Your task to perform on an android device: turn vacation reply on in the gmail app Image 0: 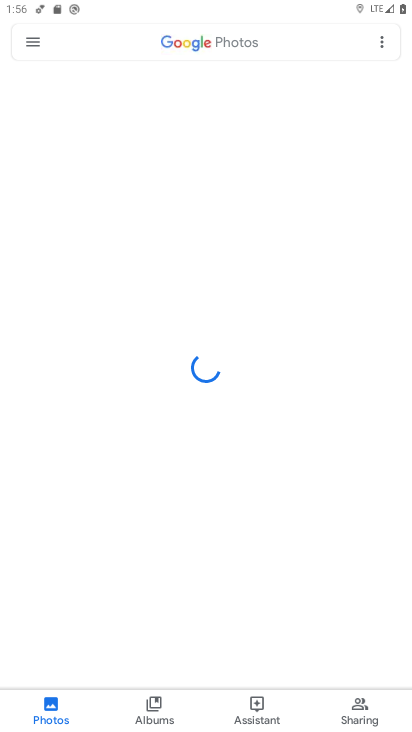
Step 0: press home button
Your task to perform on an android device: turn vacation reply on in the gmail app Image 1: 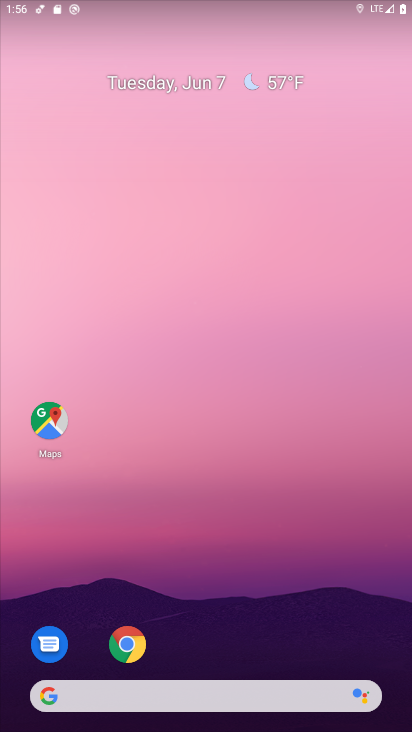
Step 1: drag from (251, 627) to (249, 48)
Your task to perform on an android device: turn vacation reply on in the gmail app Image 2: 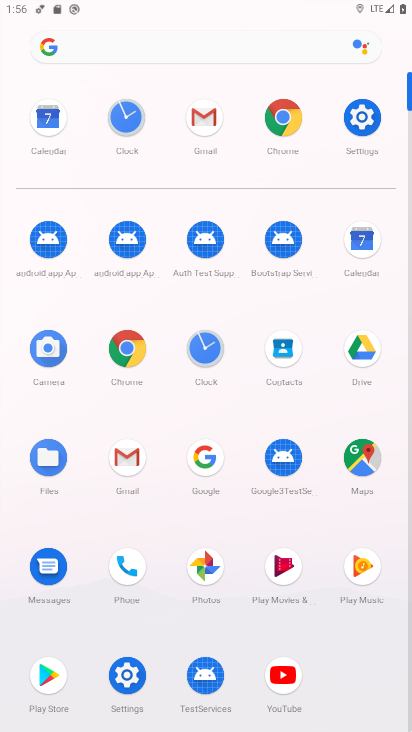
Step 2: click (115, 453)
Your task to perform on an android device: turn vacation reply on in the gmail app Image 3: 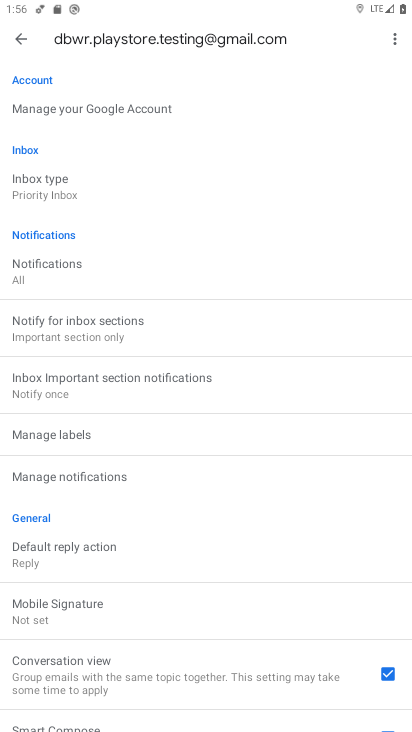
Step 3: drag from (207, 606) to (143, 197)
Your task to perform on an android device: turn vacation reply on in the gmail app Image 4: 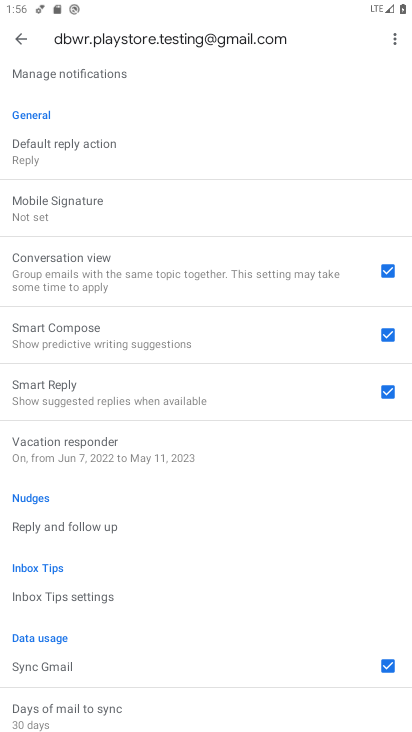
Step 4: click (87, 446)
Your task to perform on an android device: turn vacation reply on in the gmail app Image 5: 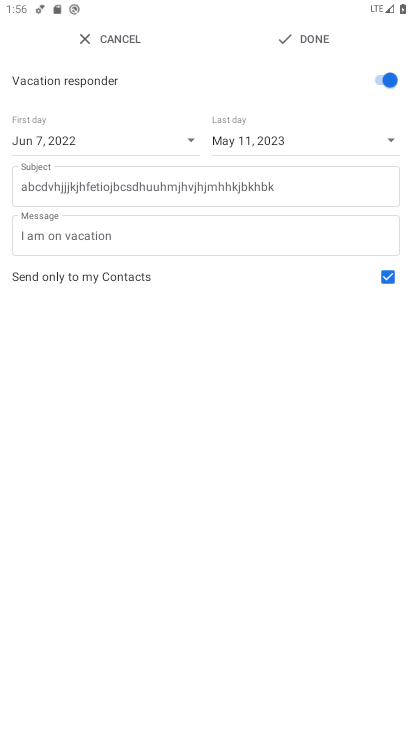
Step 5: click (297, 39)
Your task to perform on an android device: turn vacation reply on in the gmail app Image 6: 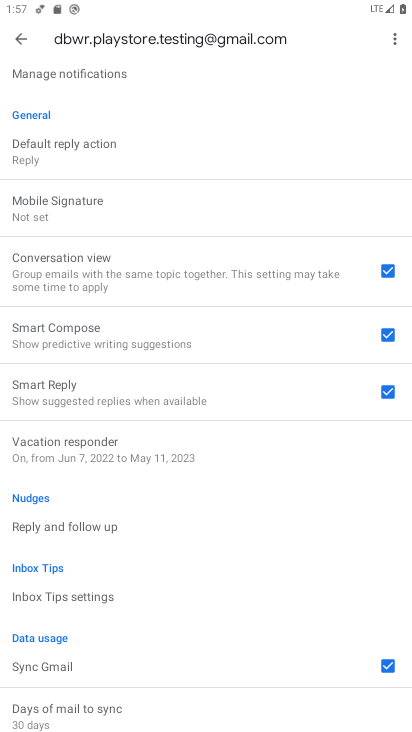
Step 6: task complete